Your task to perform on an android device: Open display settings Image 0: 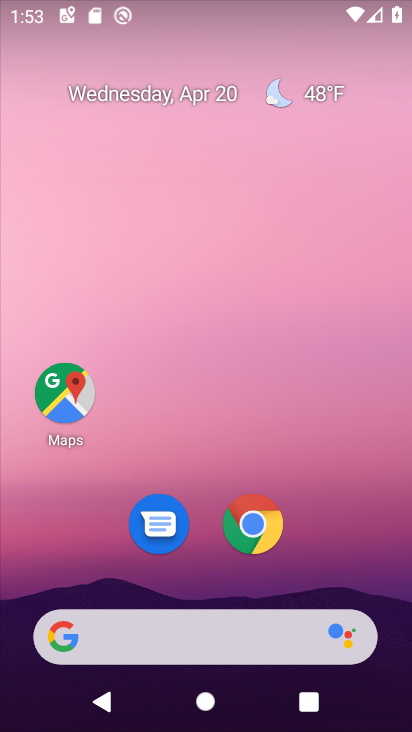
Step 0: drag from (366, 505) to (313, 114)
Your task to perform on an android device: Open display settings Image 1: 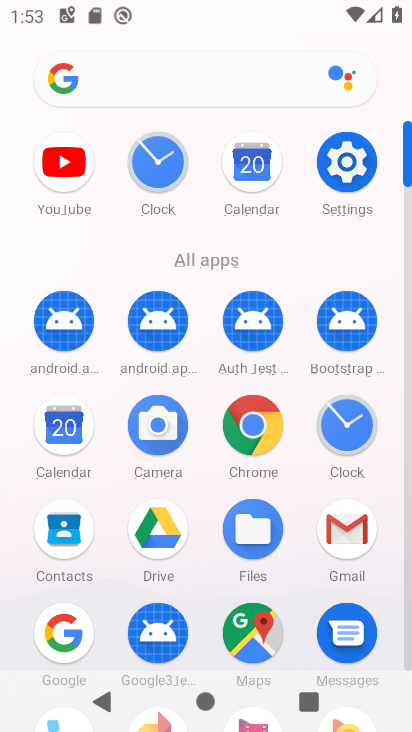
Step 1: click (341, 162)
Your task to perform on an android device: Open display settings Image 2: 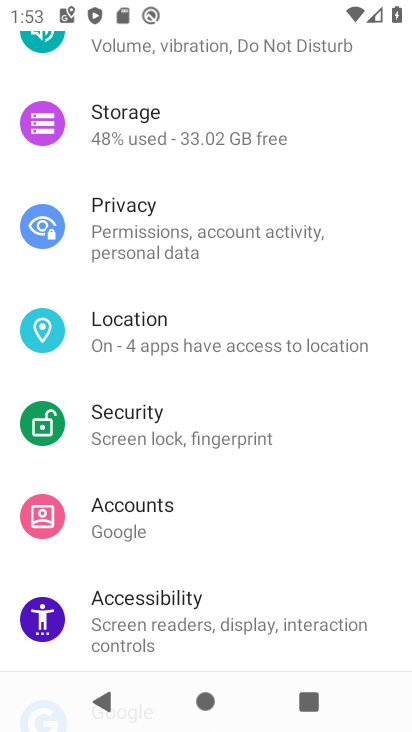
Step 2: drag from (280, 196) to (309, 649)
Your task to perform on an android device: Open display settings Image 3: 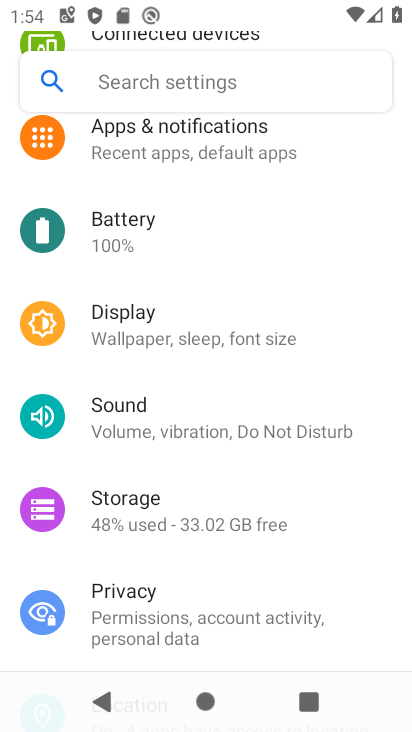
Step 3: click (233, 315)
Your task to perform on an android device: Open display settings Image 4: 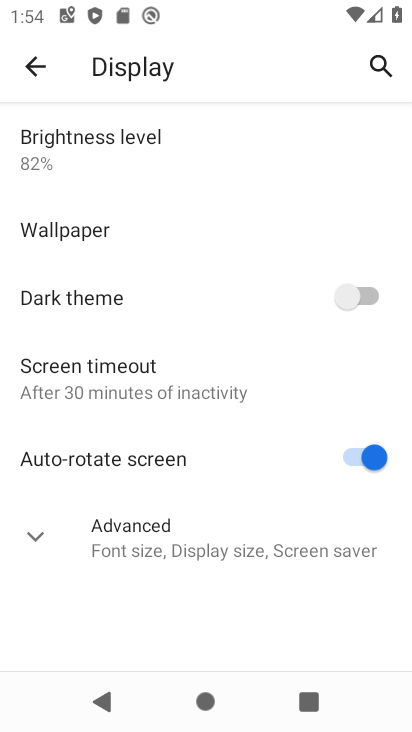
Step 4: press home button
Your task to perform on an android device: Open display settings Image 5: 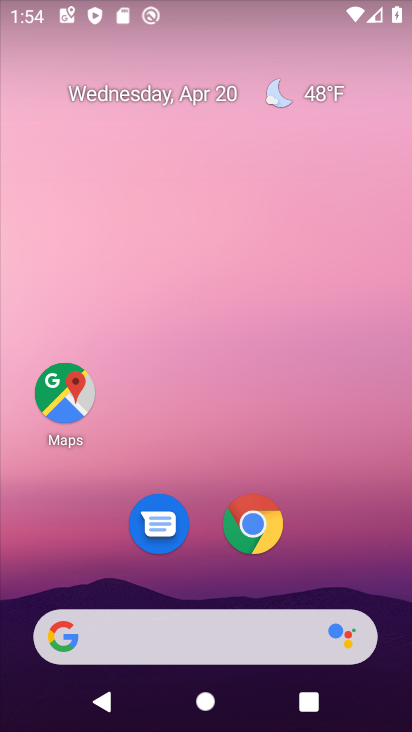
Step 5: drag from (352, 497) to (340, 58)
Your task to perform on an android device: Open display settings Image 6: 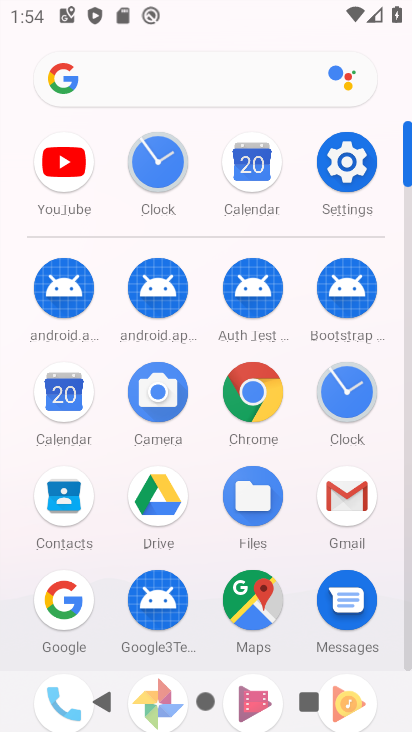
Step 6: click (342, 167)
Your task to perform on an android device: Open display settings Image 7: 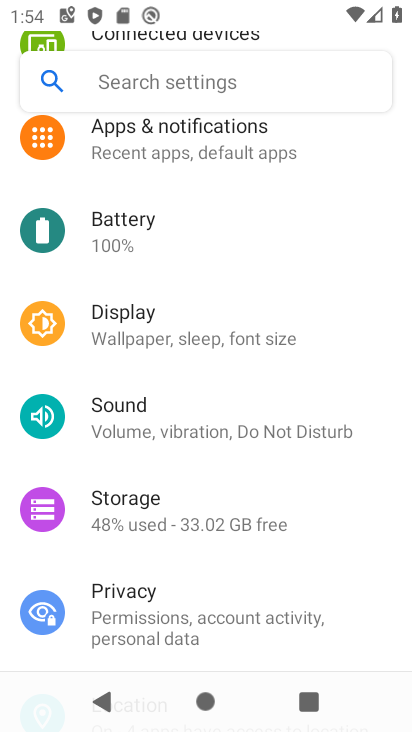
Step 7: click (229, 331)
Your task to perform on an android device: Open display settings Image 8: 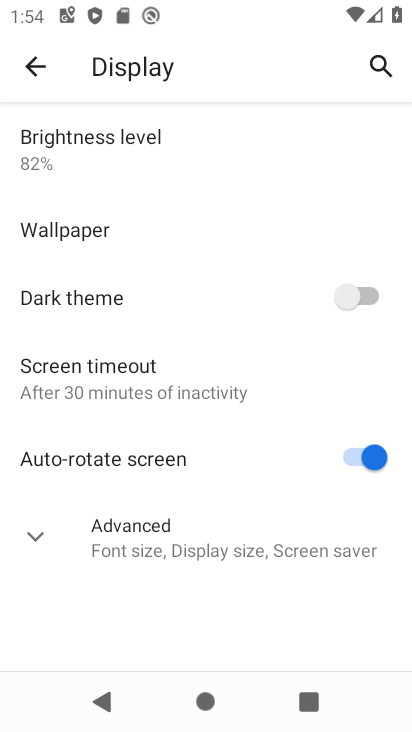
Step 8: task complete